Your task to perform on an android device: turn off translation in the chrome app Image 0: 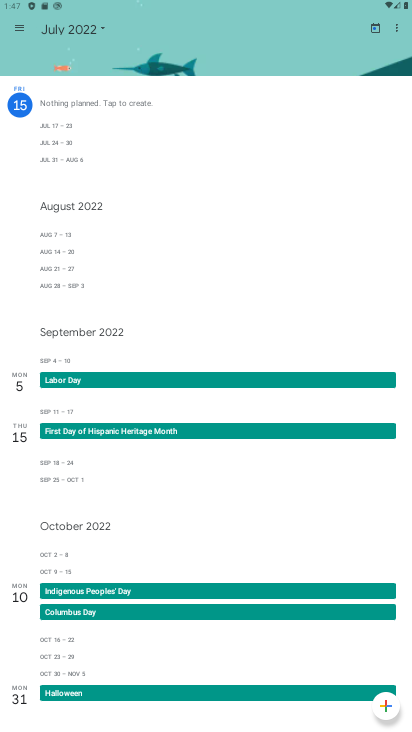
Step 0: press home button
Your task to perform on an android device: turn off translation in the chrome app Image 1: 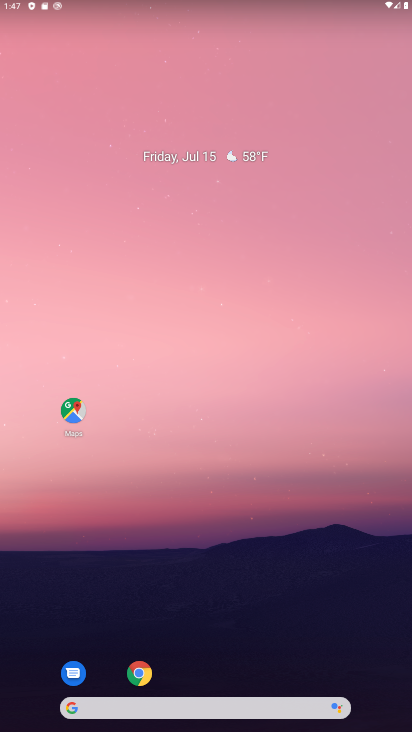
Step 1: click (136, 666)
Your task to perform on an android device: turn off translation in the chrome app Image 2: 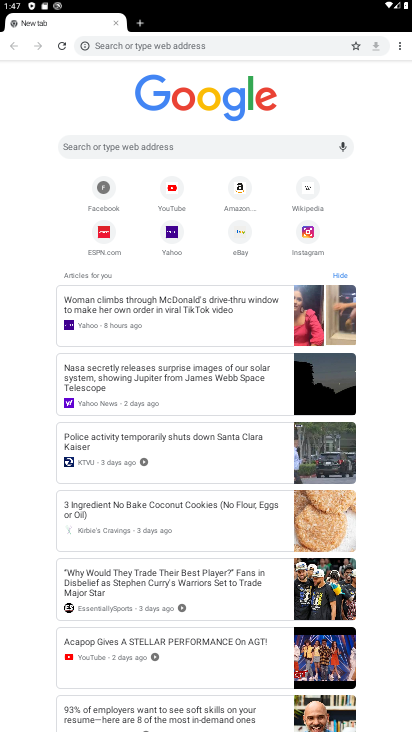
Step 2: click (394, 46)
Your task to perform on an android device: turn off translation in the chrome app Image 3: 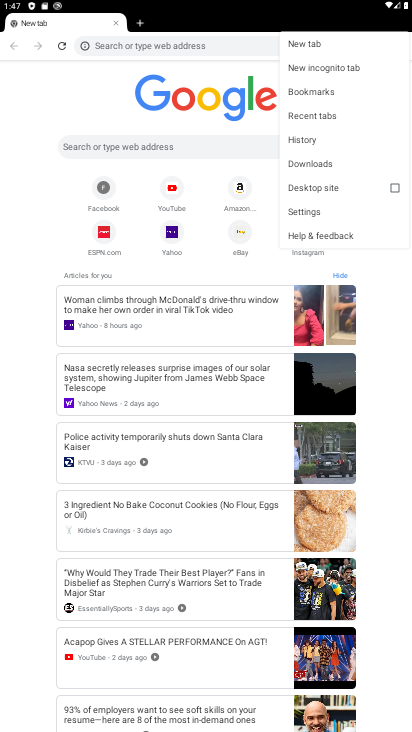
Step 3: click (295, 207)
Your task to perform on an android device: turn off translation in the chrome app Image 4: 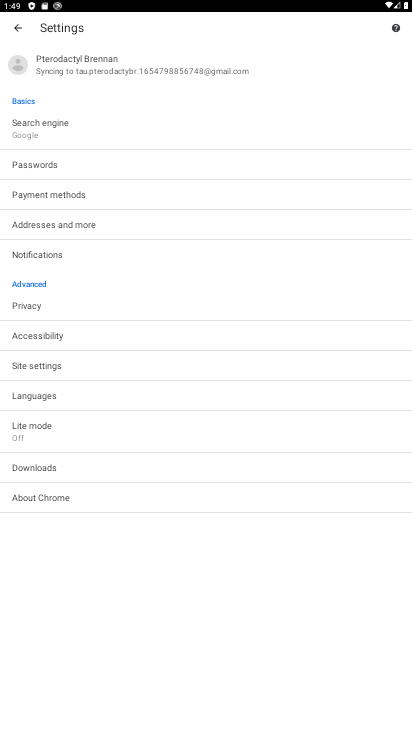
Step 4: click (62, 390)
Your task to perform on an android device: turn off translation in the chrome app Image 5: 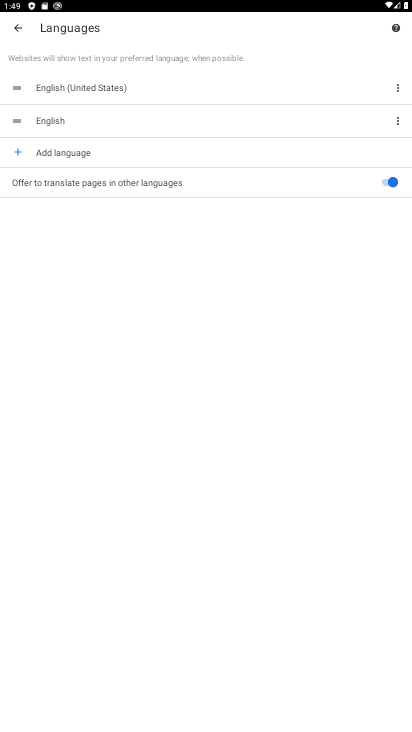
Step 5: click (385, 182)
Your task to perform on an android device: turn off translation in the chrome app Image 6: 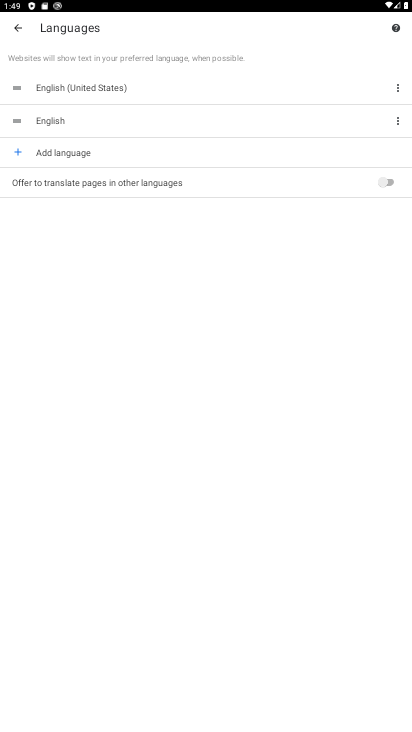
Step 6: task complete